Your task to perform on an android device: What's the weather today? Image 0: 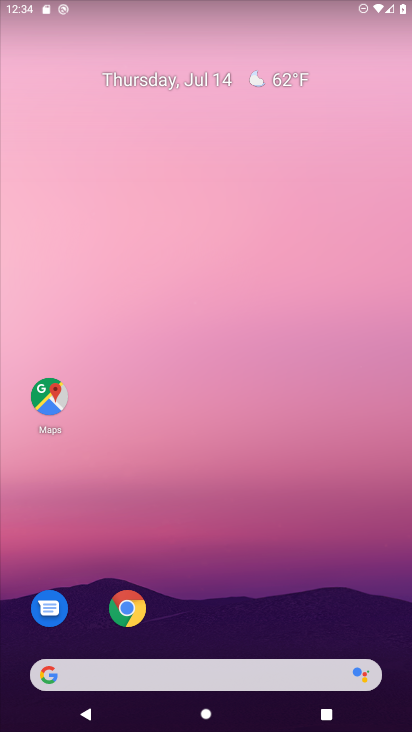
Step 0: click (255, 78)
Your task to perform on an android device: What's the weather today? Image 1: 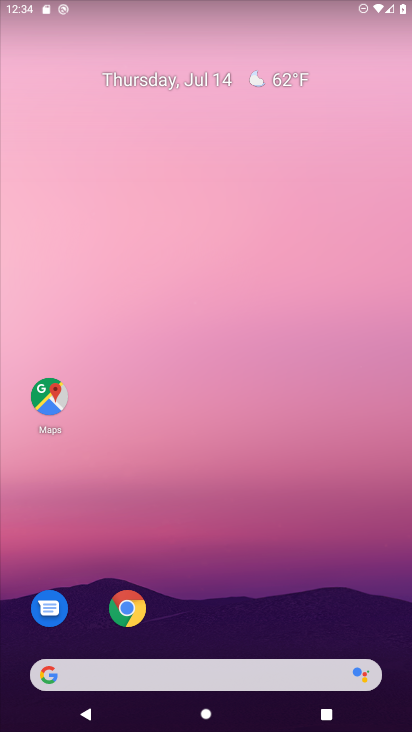
Step 1: drag from (245, 618) to (241, 72)
Your task to perform on an android device: What's the weather today? Image 2: 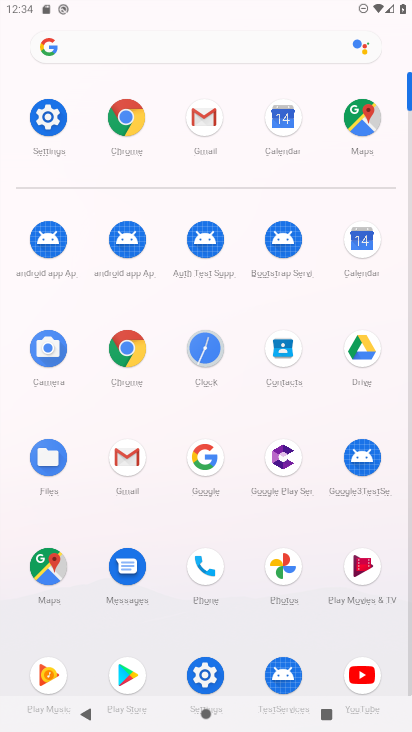
Step 2: click (205, 454)
Your task to perform on an android device: What's the weather today? Image 3: 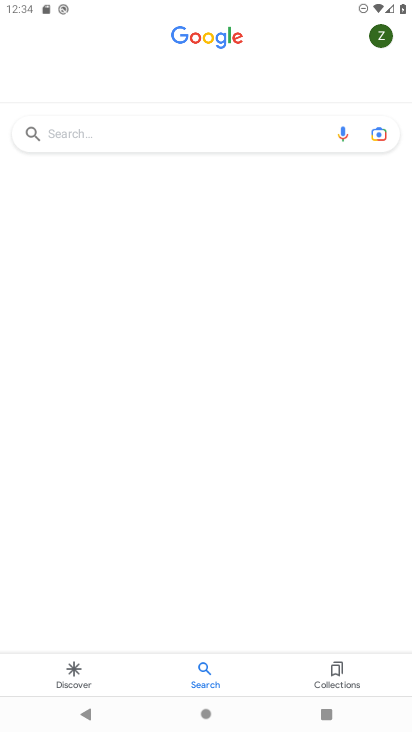
Step 3: click (133, 131)
Your task to perform on an android device: What's the weather today? Image 4: 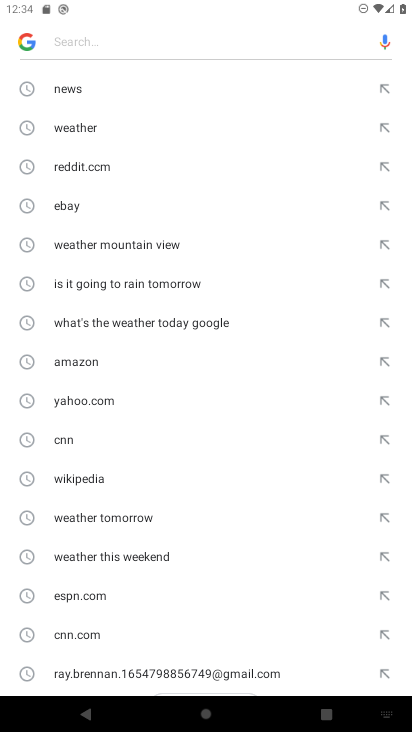
Step 4: click (72, 125)
Your task to perform on an android device: What's the weather today? Image 5: 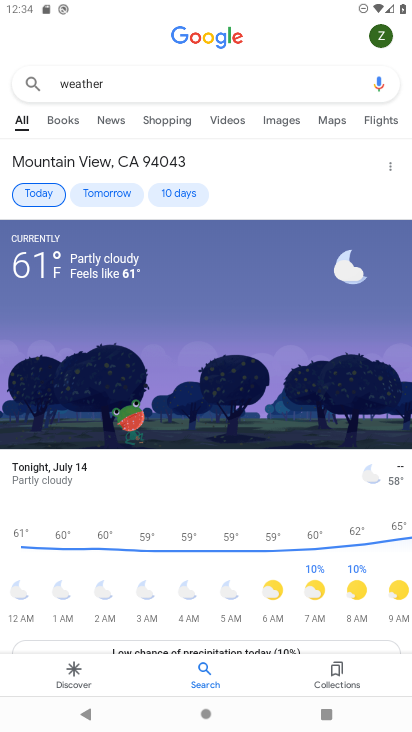
Step 5: click (40, 194)
Your task to perform on an android device: What's the weather today? Image 6: 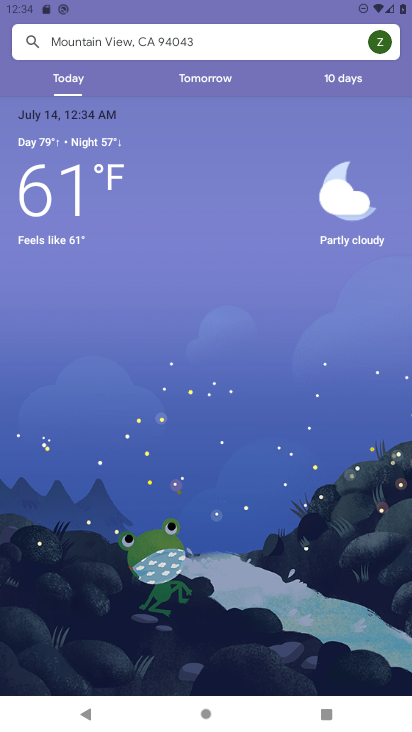
Step 6: task complete